Your task to perform on an android device: change keyboard looks Image 0: 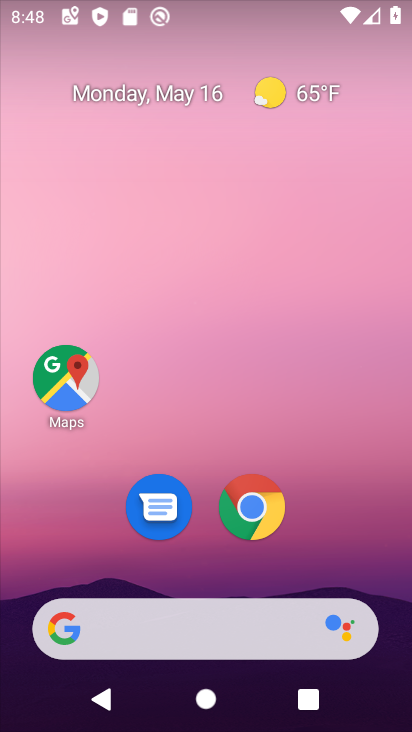
Step 0: drag from (209, 577) to (368, 23)
Your task to perform on an android device: change keyboard looks Image 1: 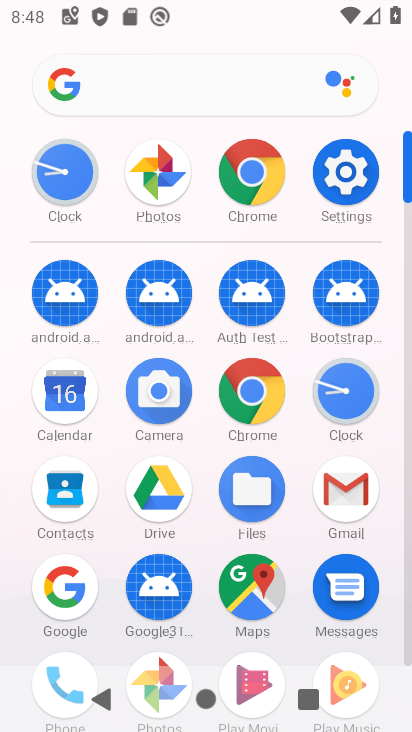
Step 1: click (357, 174)
Your task to perform on an android device: change keyboard looks Image 2: 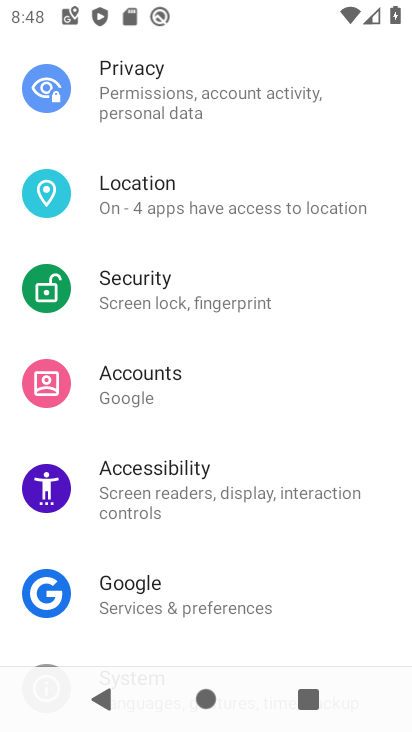
Step 2: drag from (183, 334) to (183, 727)
Your task to perform on an android device: change keyboard looks Image 3: 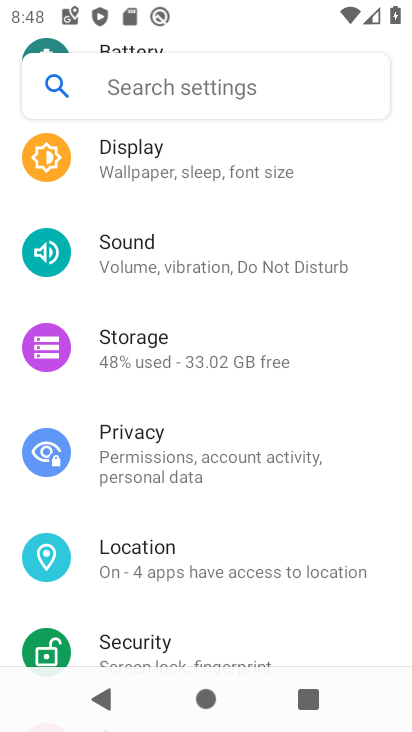
Step 3: click (151, 580)
Your task to perform on an android device: change keyboard looks Image 4: 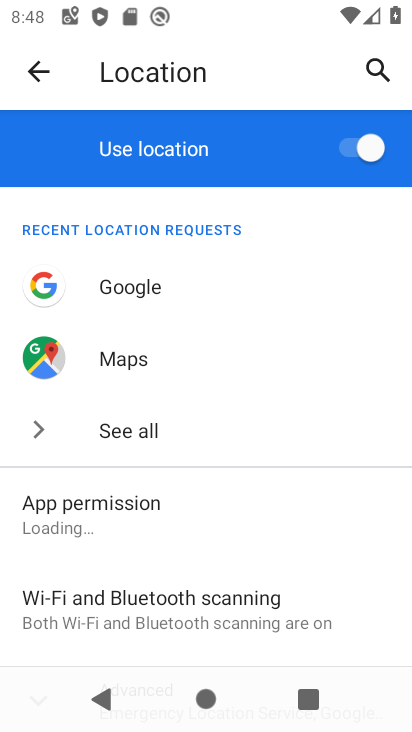
Step 4: drag from (201, 593) to (201, 131)
Your task to perform on an android device: change keyboard looks Image 5: 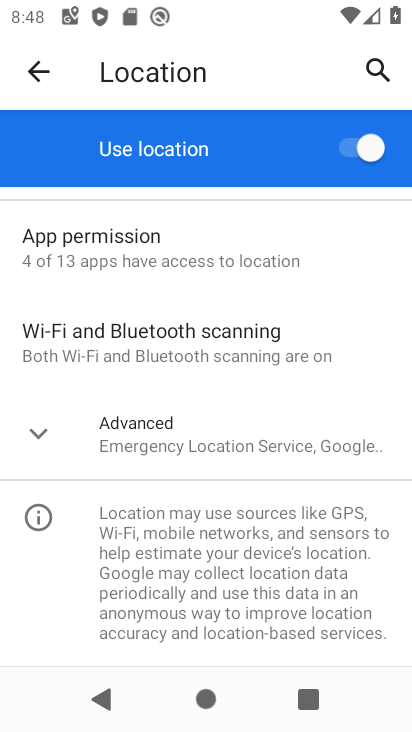
Step 5: click (51, 66)
Your task to perform on an android device: change keyboard looks Image 6: 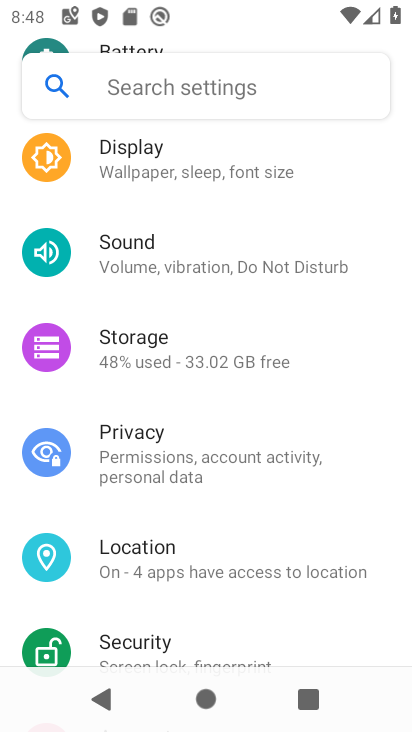
Step 6: drag from (273, 503) to (228, 93)
Your task to perform on an android device: change keyboard looks Image 7: 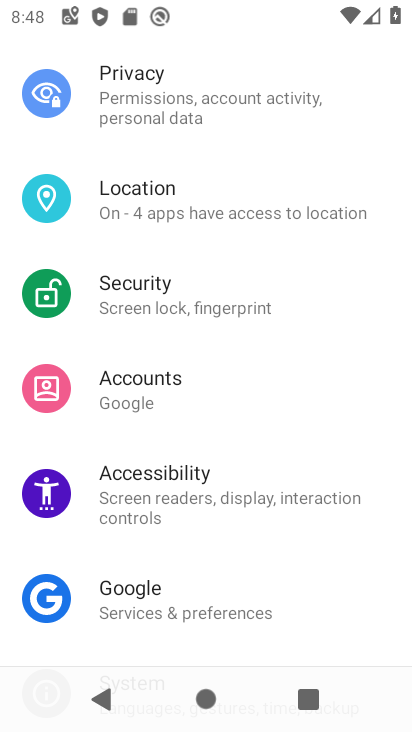
Step 7: drag from (205, 495) to (204, 127)
Your task to perform on an android device: change keyboard looks Image 8: 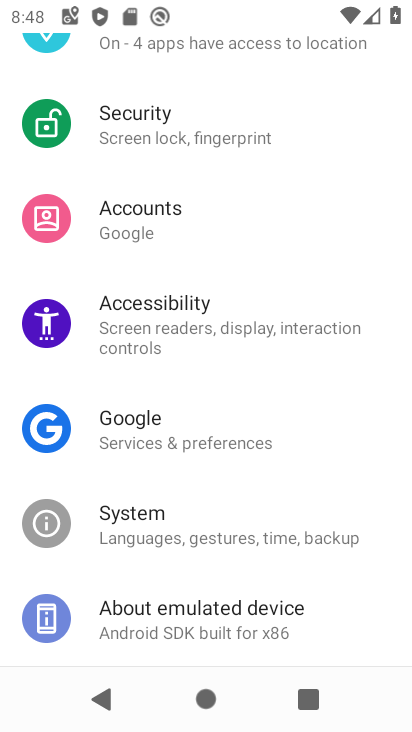
Step 8: click (168, 498)
Your task to perform on an android device: change keyboard looks Image 9: 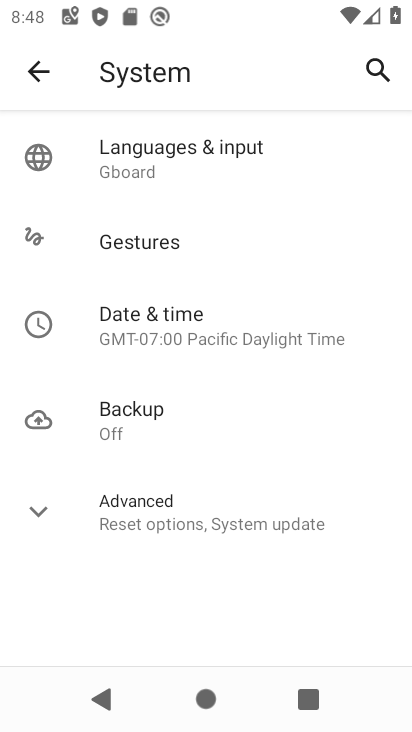
Step 9: click (212, 131)
Your task to perform on an android device: change keyboard looks Image 10: 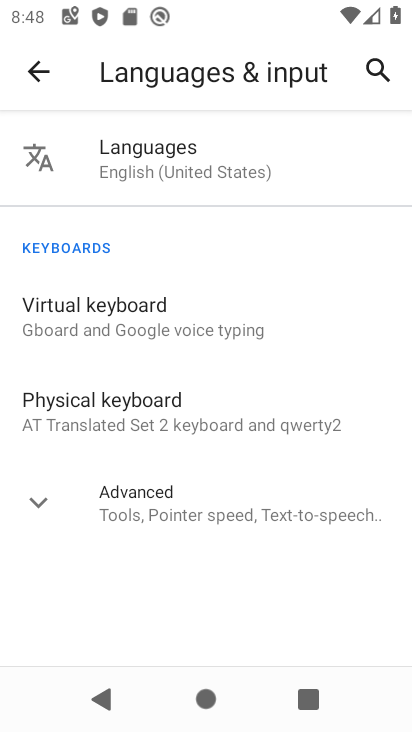
Step 10: click (117, 329)
Your task to perform on an android device: change keyboard looks Image 11: 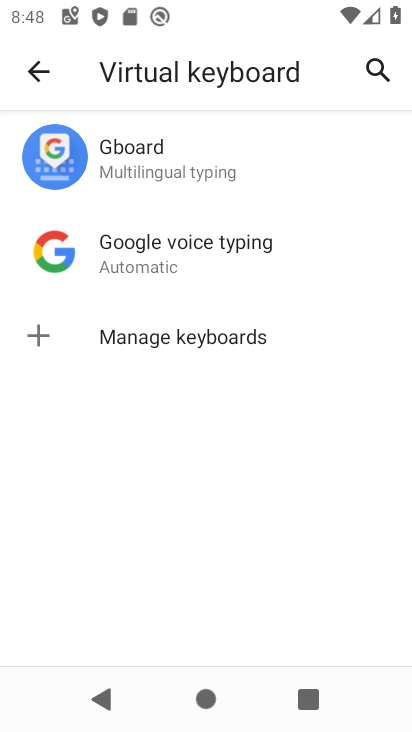
Step 11: click (172, 179)
Your task to perform on an android device: change keyboard looks Image 12: 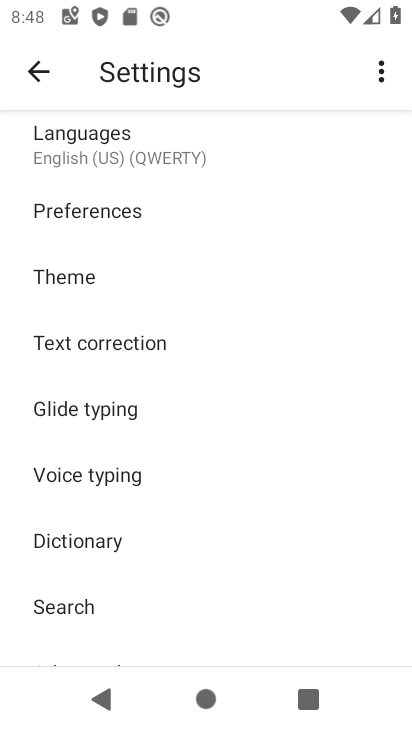
Step 12: click (99, 280)
Your task to perform on an android device: change keyboard looks Image 13: 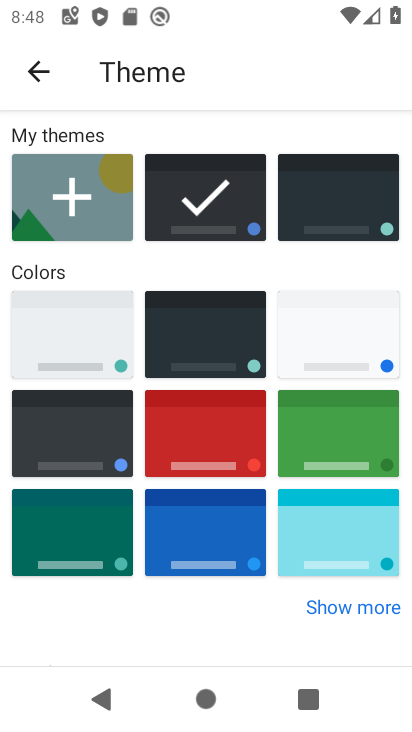
Step 13: click (198, 483)
Your task to perform on an android device: change keyboard looks Image 14: 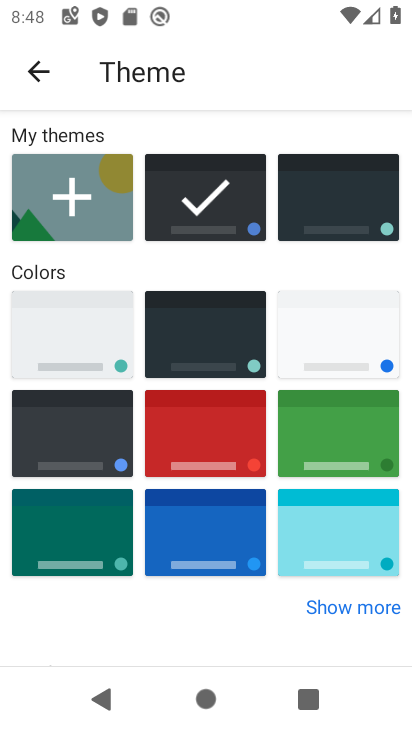
Step 14: click (203, 424)
Your task to perform on an android device: change keyboard looks Image 15: 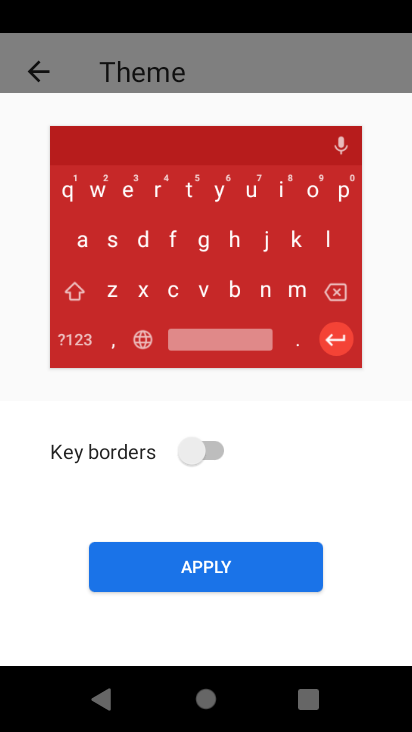
Step 15: click (209, 549)
Your task to perform on an android device: change keyboard looks Image 16: 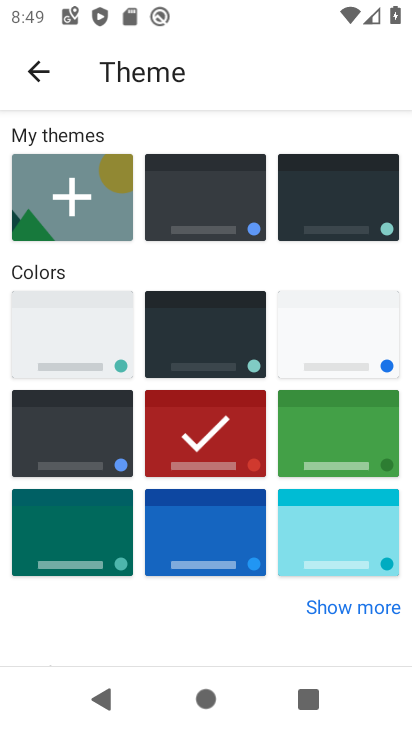
Step 16: task complete